Your task to perform on an android device: toggle priority inbox in the gmail app Image 0: 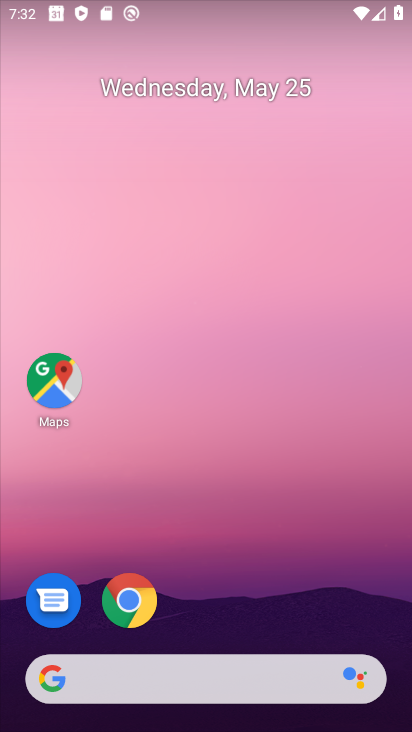
Step 0: drag from (264, 592) to (244, 185)
Your task to perform on an android device: toggle priority inbox in the gmail app Image 1: 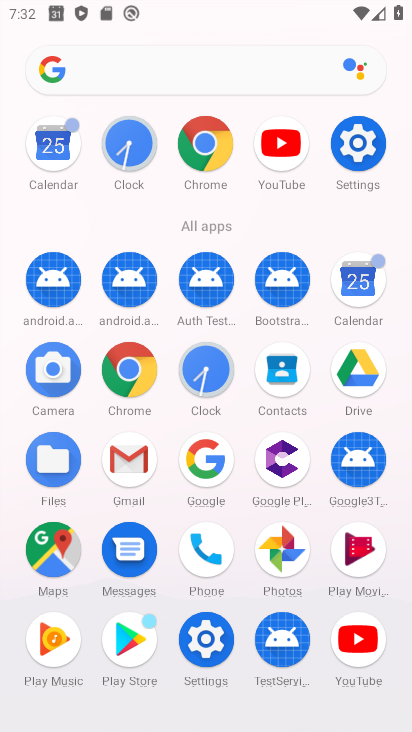
Step 1: click (128, 480)
Your task to perform on an android device: toggle priority inbox in the gmail app Image 2: 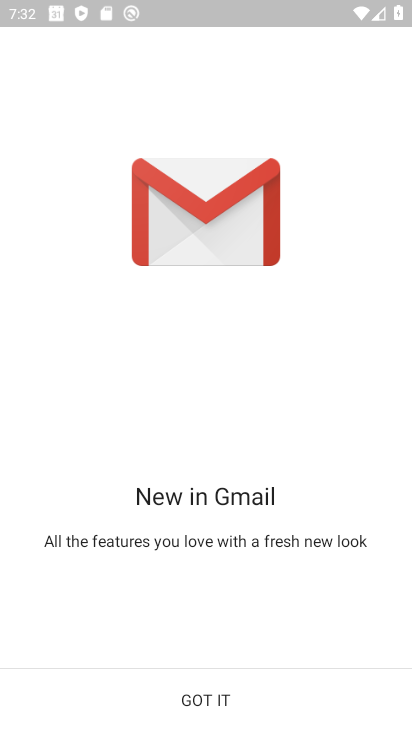
Step 2: click (182, 699)
Your task to perform on an android device: toggle priority inbox in the gmail app Image 3: 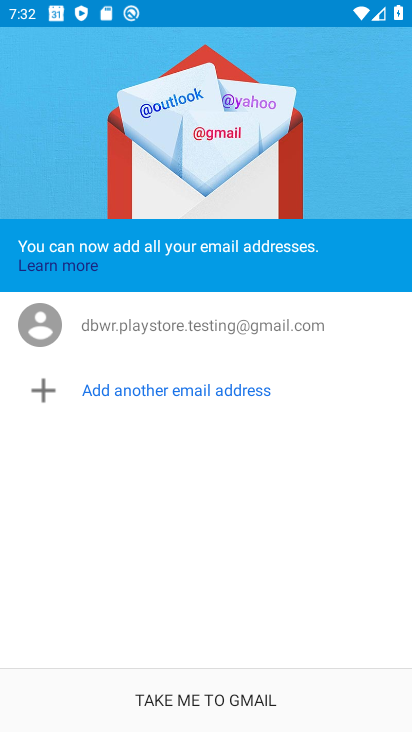
Step 3: click (183, 697)
Your task to perform on an android device: toggle priority inbox in the gmail app Image 4: 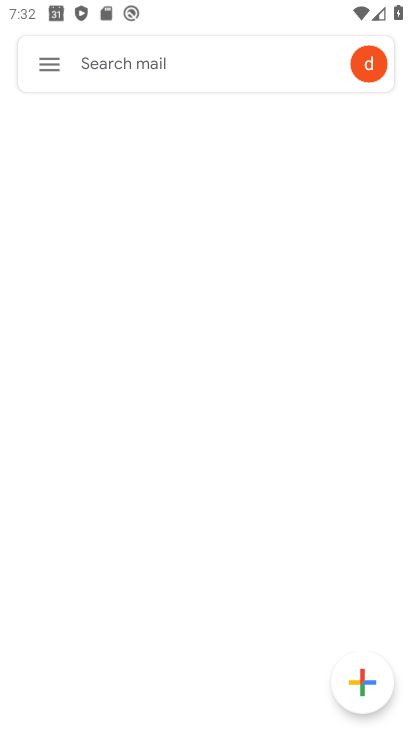
Step 4: click (59, 72)
Your task to perform on an android device: toggle priority inbox in the gmail app Image 5: 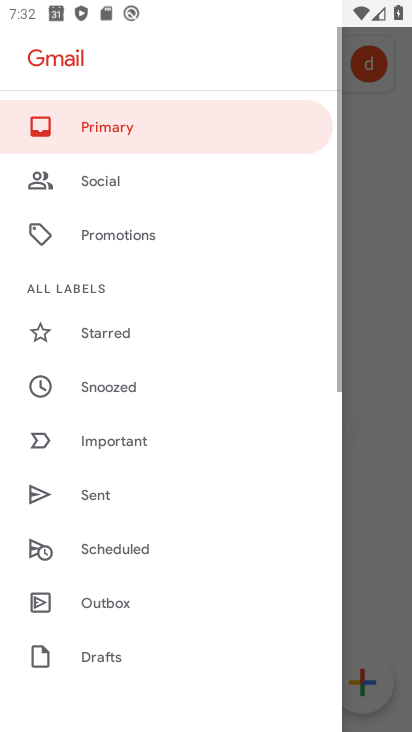
Step 5: drag from (154, 651) to (173, 265)
Your task to perform on an android device: toggle priority inbox in the gmail app Image 6: 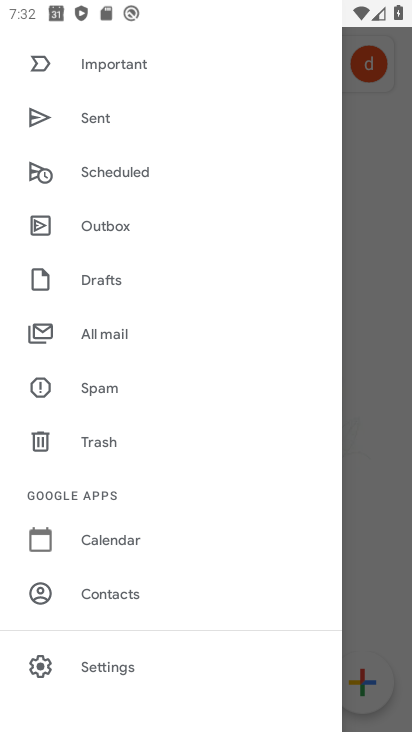
Step 6: click (166, 669)
Your task to perform on an android device: toggle priority inbox in the gmail app Image 7: 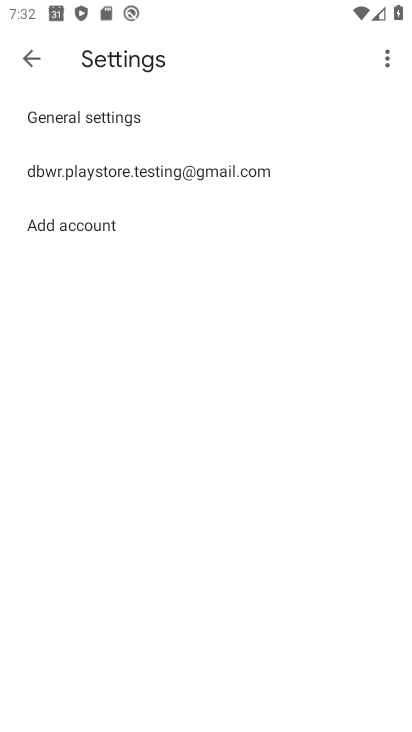
Step 7: click (172, 172)
Your task to perform on an android device: toggle priority inbox in the gmail app Image 8: 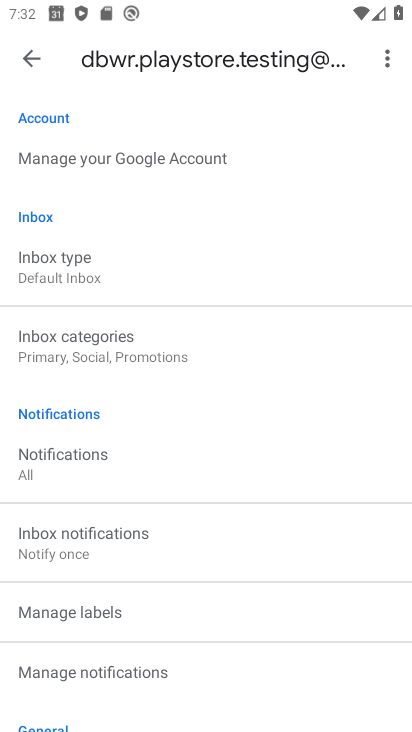
Step 8: click (127, 370)
Your task to perform on an android device: toggle priority inbox in the gmail app Image 9: 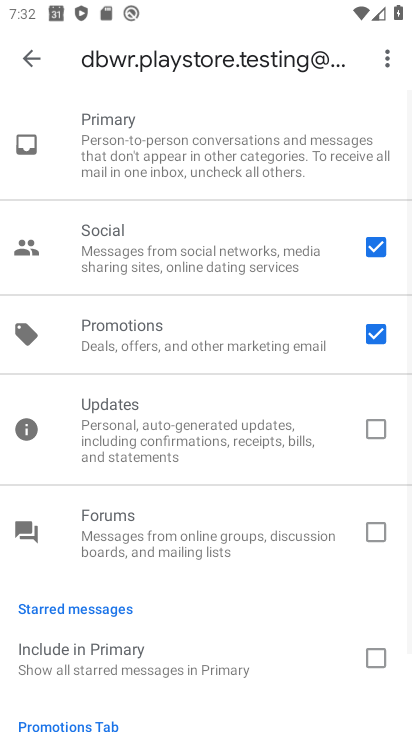
Step 9: click (13, 57)
Your task to perform on an android device: toggle priority inbox in the gmail app Image 10: 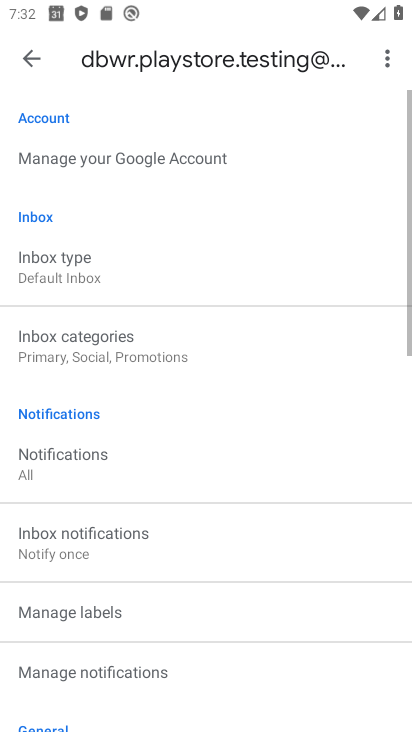
Step 10: click (85, 250)
Your task to perform on an android device: toggle priority inbox in the gmail app Image 11: 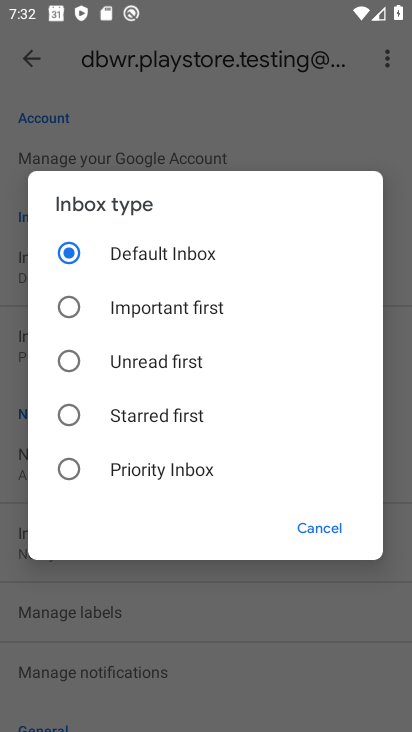
Step 11: click (56, 474)
Your task to perform on an android device: toggle priority inbox in the gmail app Image 12: 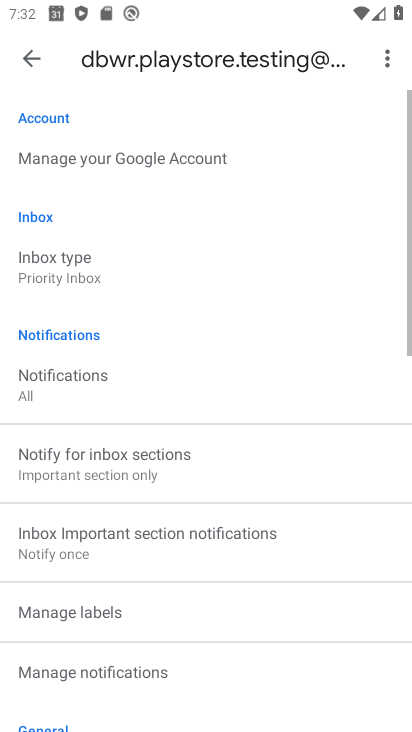
Step 12: task complete